Your task to perform on an android device: Search for the best pizza restaurants on Maps Image 0: 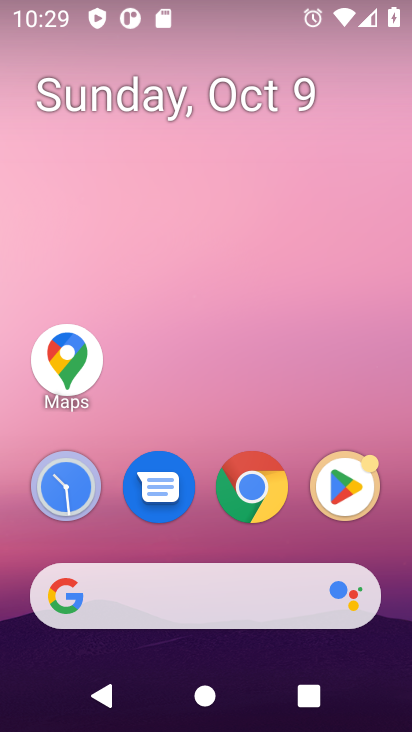
Step 0: drag from (191, 559) to (193, 52)
Your task to perform on an android device: Search for the best pizza restaurants on Maps Image 1: 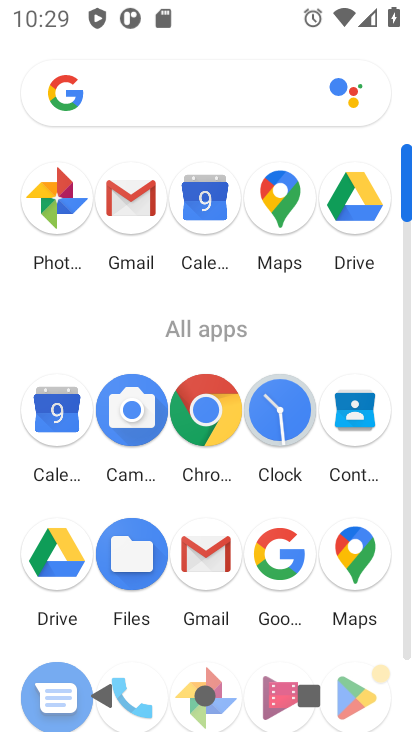
Step 1: click (280, 195)
Your task to perform on an android device: Search for the best pizza restaurants on Maps Image 2: 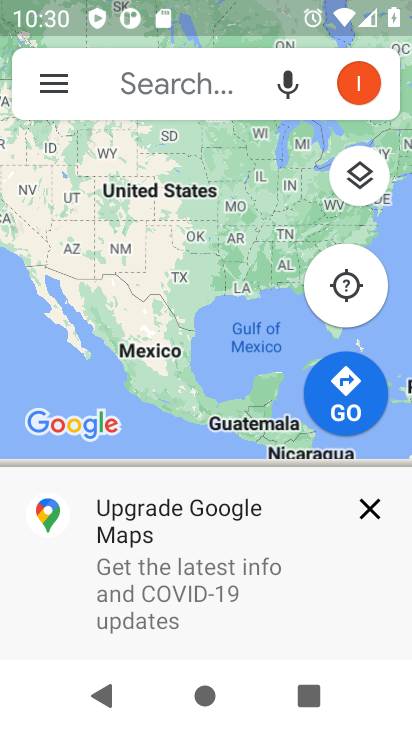
Step 2: click (177, 93)
Your task to perform on an android device: Search for the best pizza restaurants on Maps Image 3: 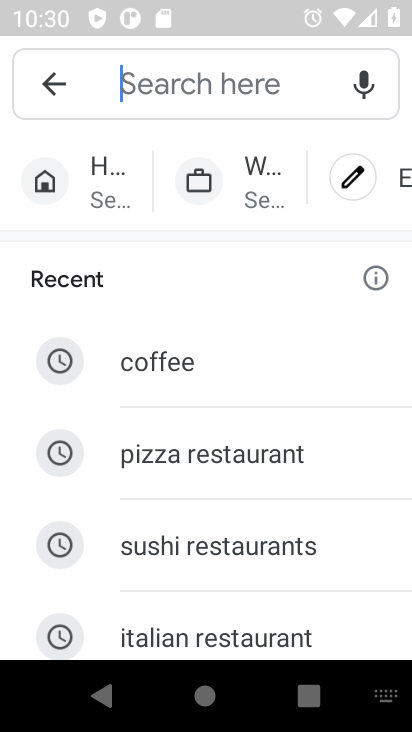
Step 3: type "best pizza restaurants"
Your task to perform on an android device: Search for the best pizza restaurants on Maps Image 4: 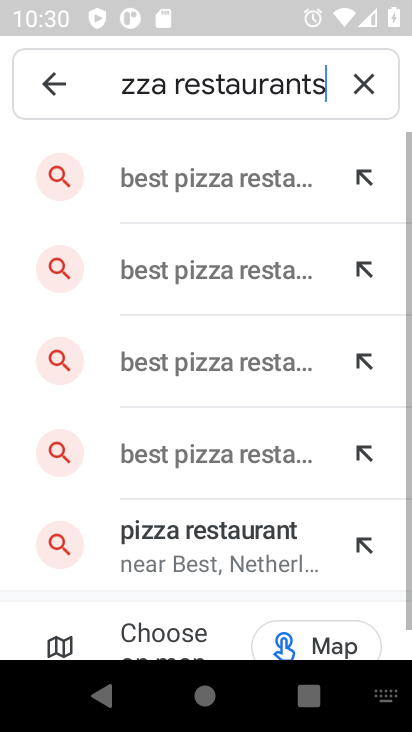
Step 4: type ""
Your task to perform on an android device: Search for the best pizza restaurants on Maps Image 5: 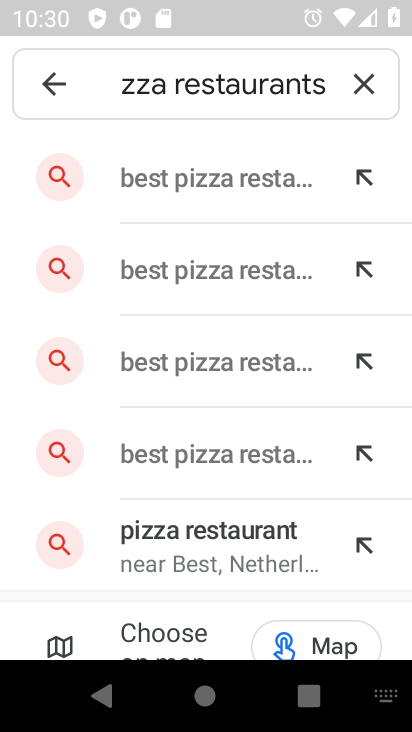
Step 5: click (273, 180)
Your task to perform on an android device: Search for the best pizza restaurants on Maps Image 6: 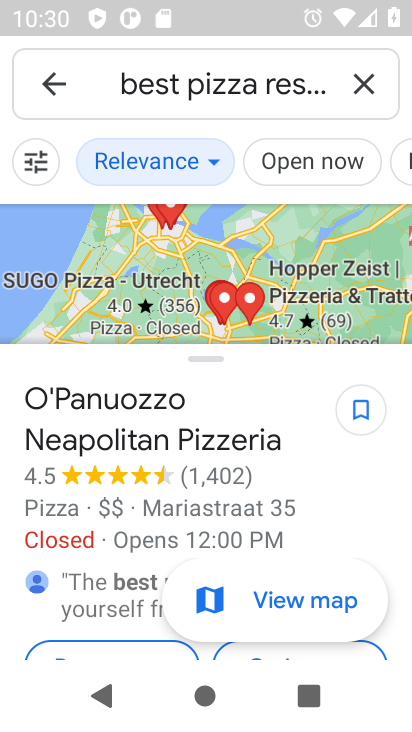
Step 6: task complete